Your task to perform on an android device: Is it going to rain tomorrow? Image 0: 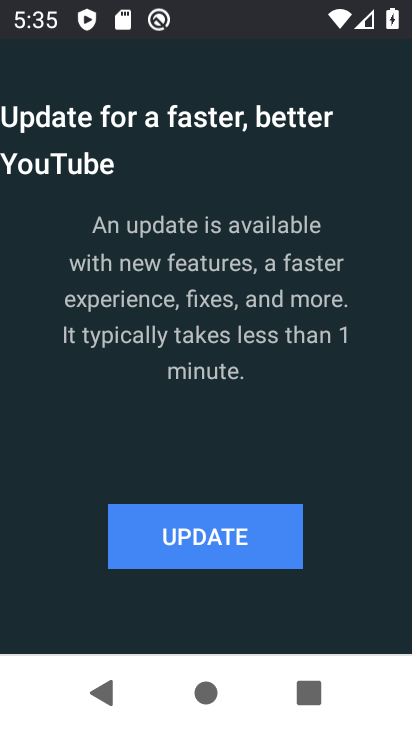
Step 0: press home button
Your task to perform on an android device: Is it going to rain tomorrow? Image 1: 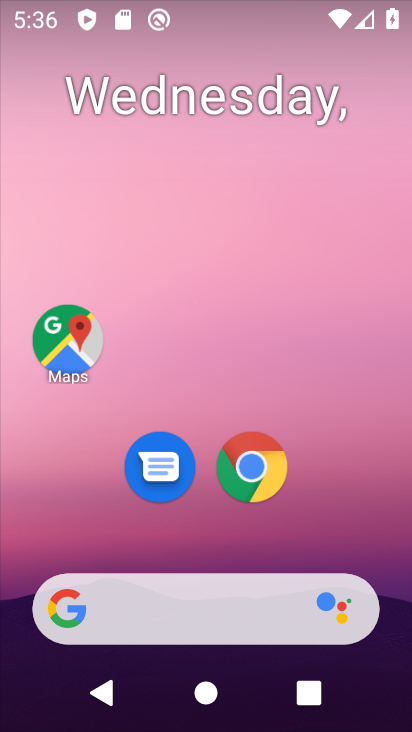
Step 1: drag from (277, 526) to (296, 26)
Your task to perform on an android device: Is it going to rain tomorrow? Image 2: 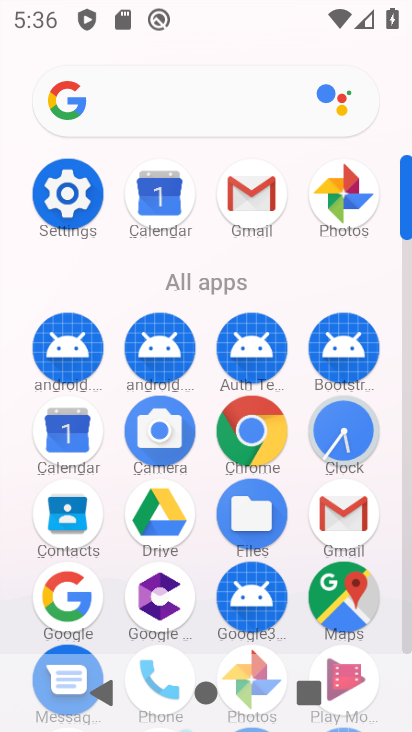
Step 2: click (61, 423)
Your task to perform on an android device: Is it going to rain tomorrow? Image 3: 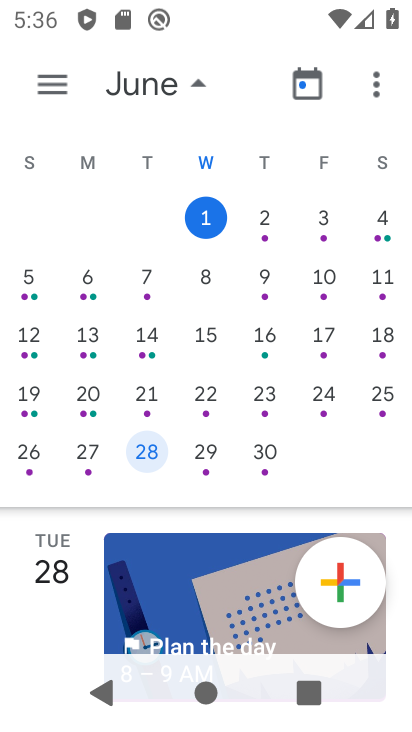
Step 3: click (265, 217)
Your task to perform on an android device: Is it going to rain tomorrow? Image 4: 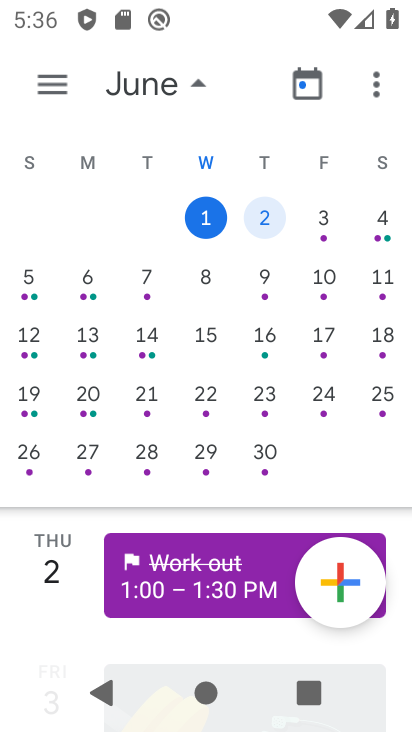
Step 4: task complete